Your task to perform on an android device: What's the latest news in astrophysics? Image 0: 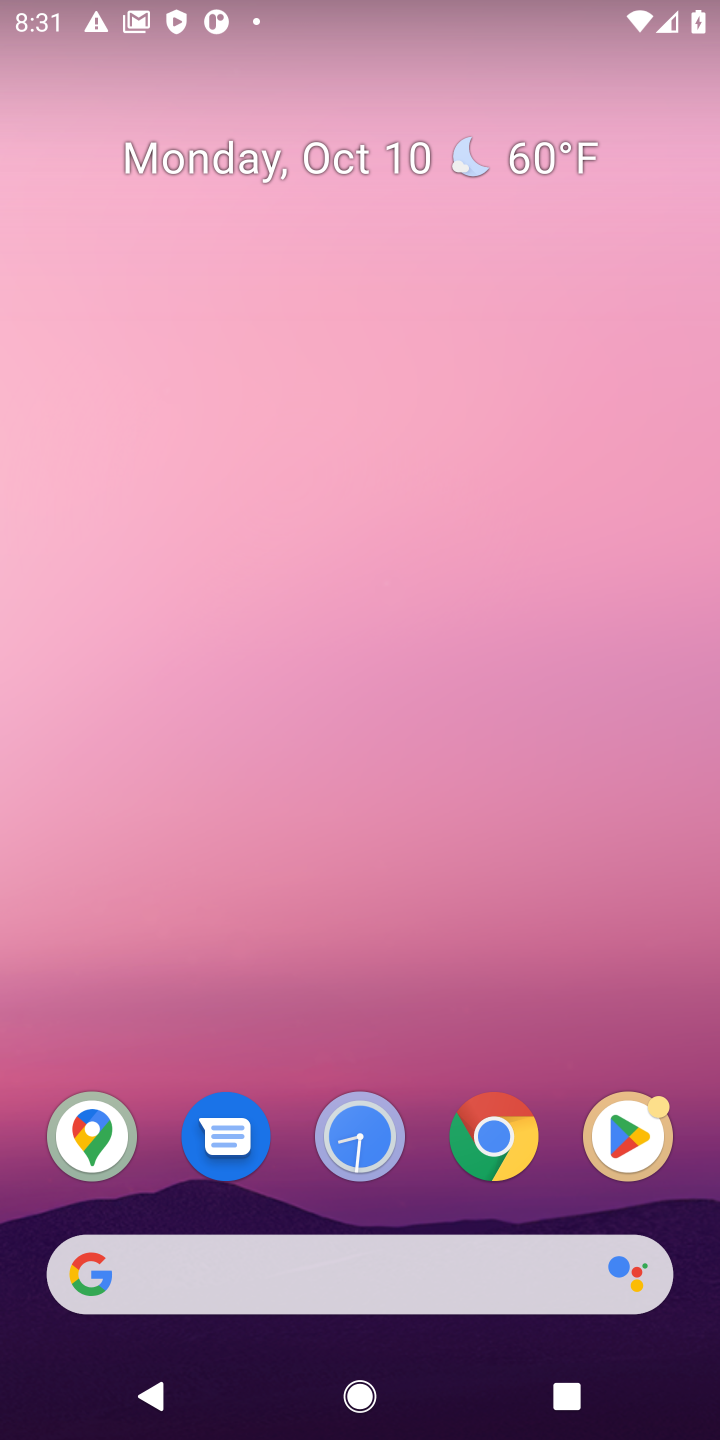
Step 0: click (258, 1282)
Your task to perform on an android device: What's the latest news in astrophysics? Image 1: 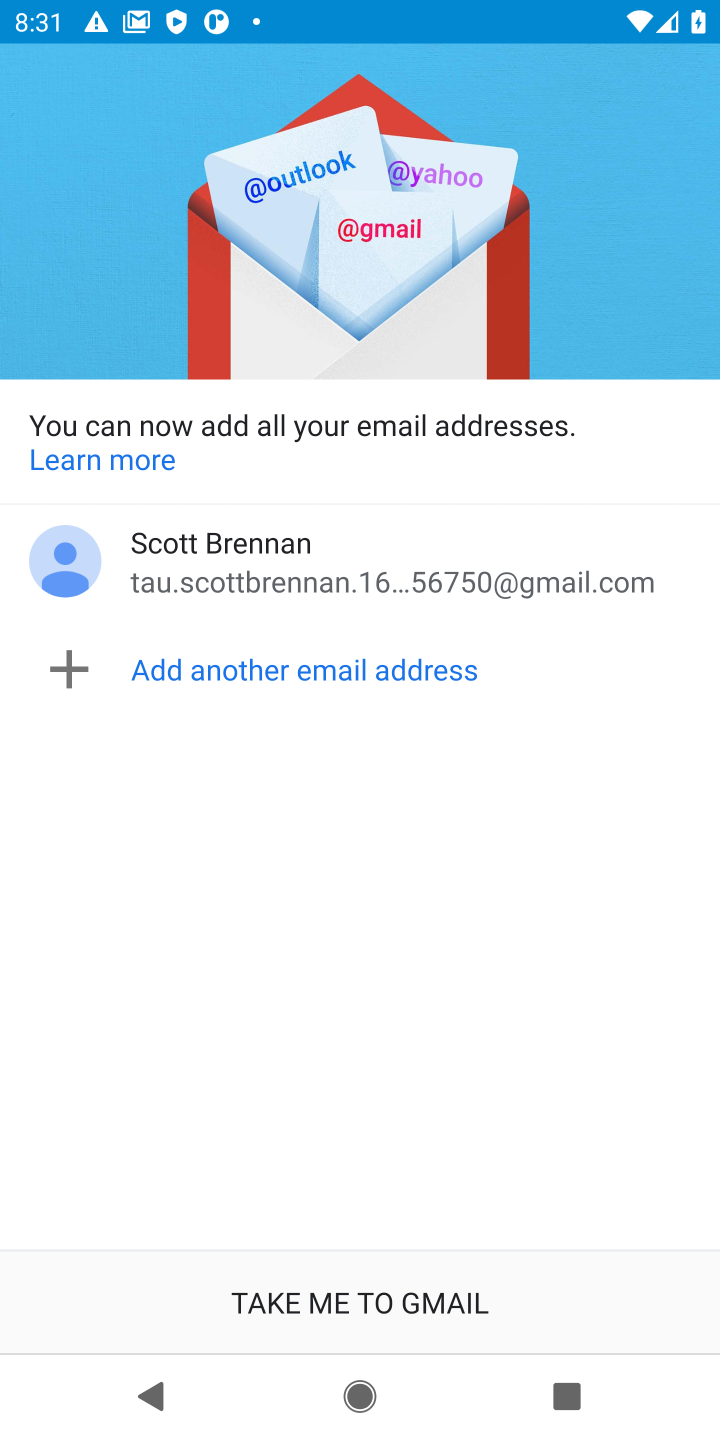
Step 1: press home button
Your task to perform on an android device: What's the latest news in astrophysics? Image 2: 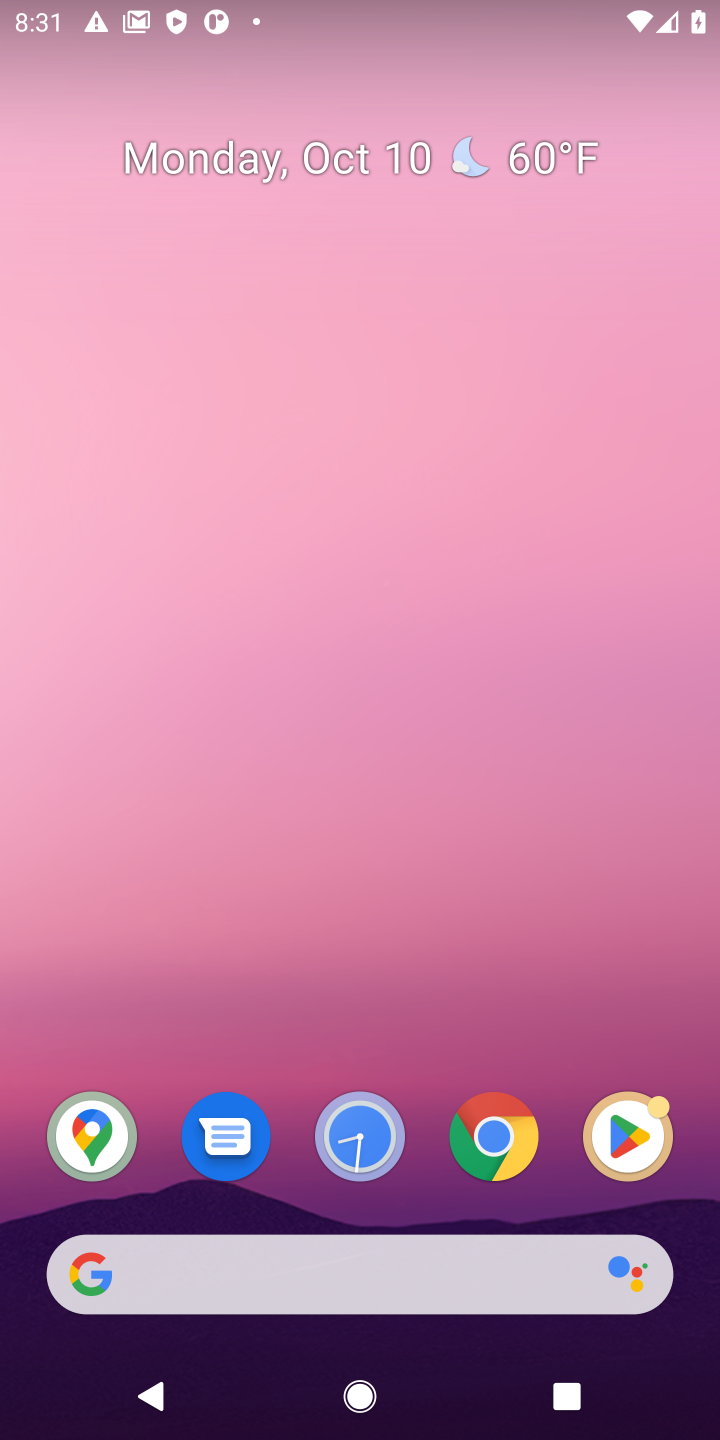
Step 2: click (182, 1272)
Your task to perform on an android device: What's the latest news in astrophysics? Image 3: 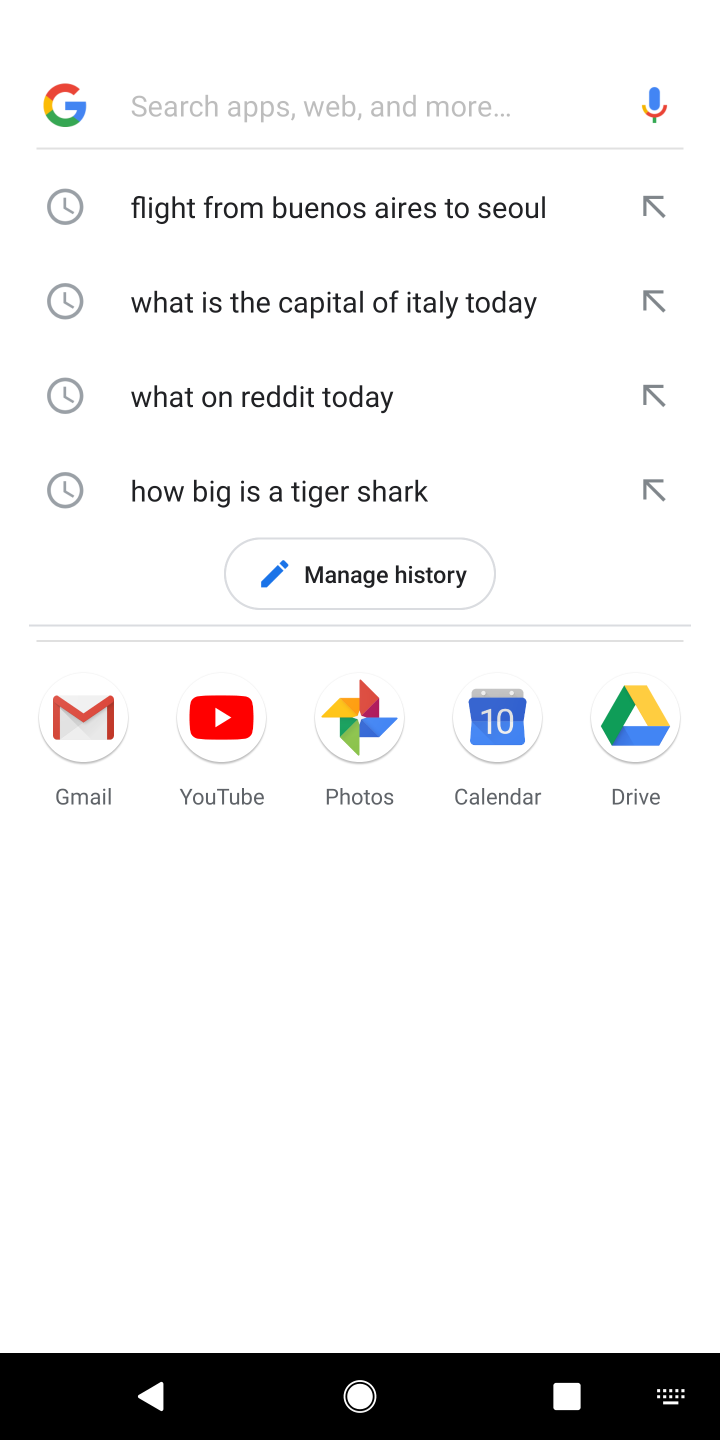
Step 3: type "What's the latest news in astrophysics?"
Your task to perform on an android device: What's the latest news in astrophysics? Image 4: 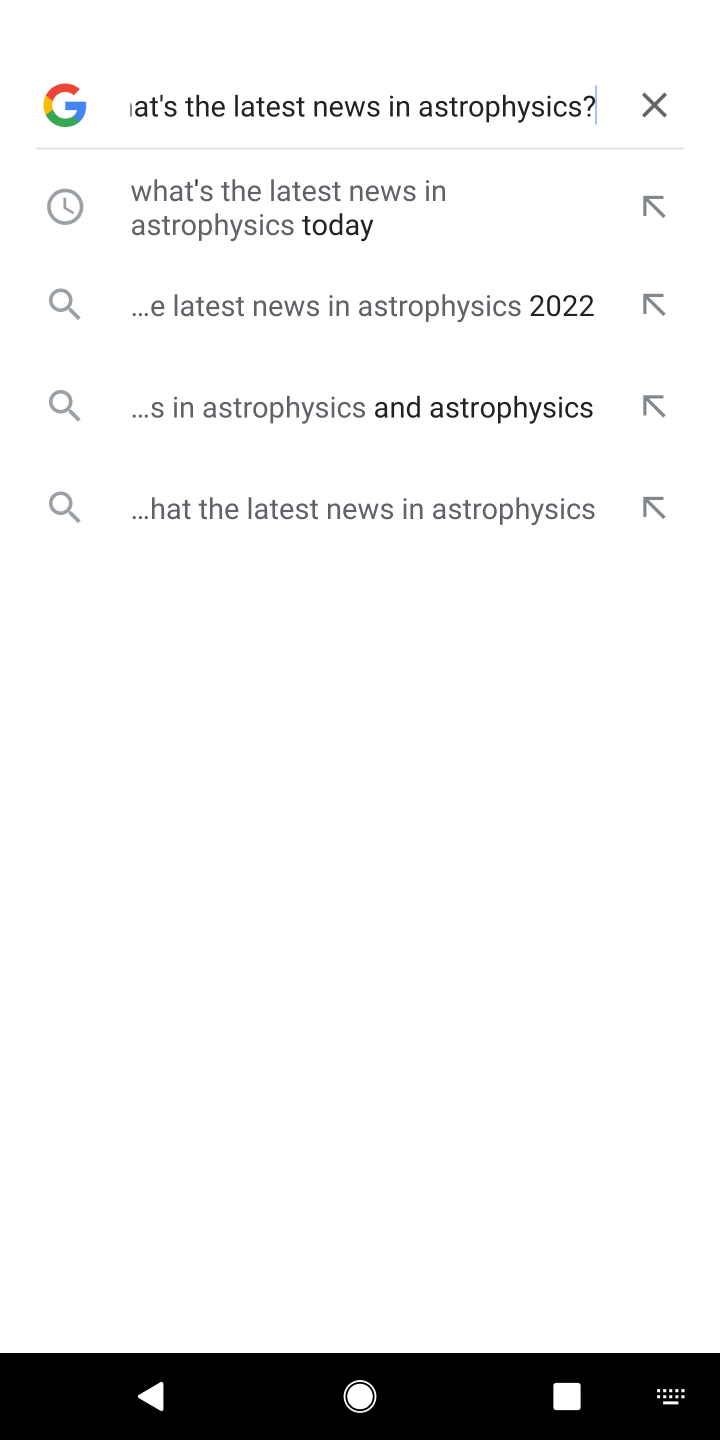
Step 4: click (316, 502)
Your task to perform on an android device: What's the latest news in astrophysics? Image 5: 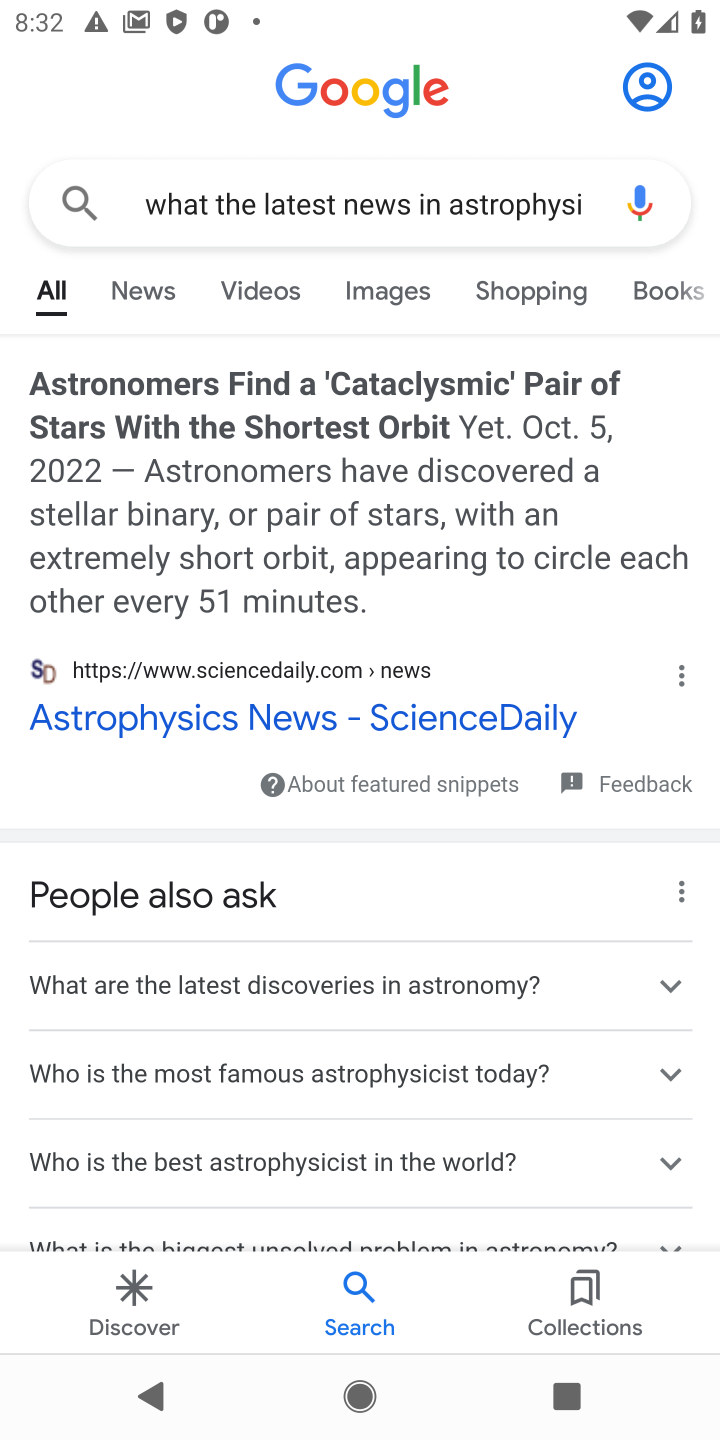
Step 5: click (321, 710)
Your task to perform on an android device: What's the latest news in astrophysics? Image 6: 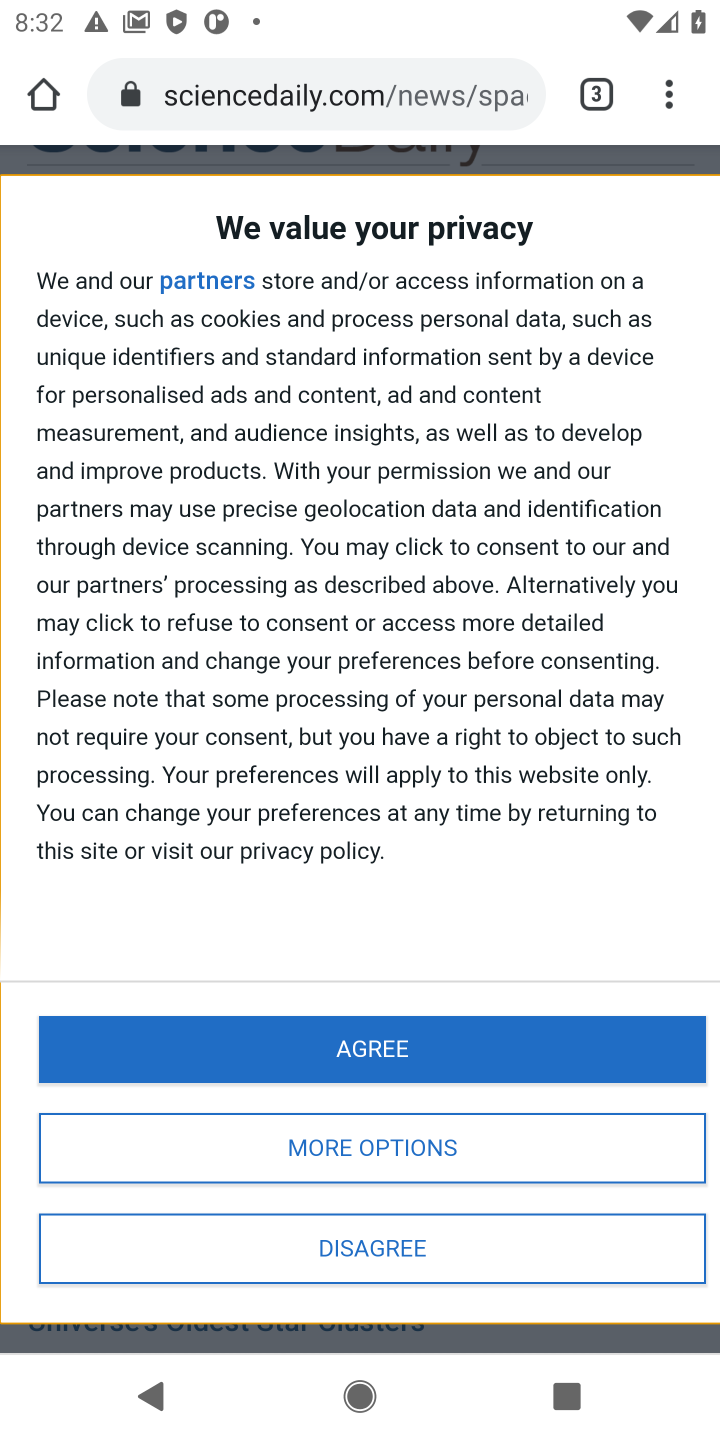
Step 6: click (387, 1066)
Your task to perform on an android device: What's the latest news in astrophysics? Image 7: 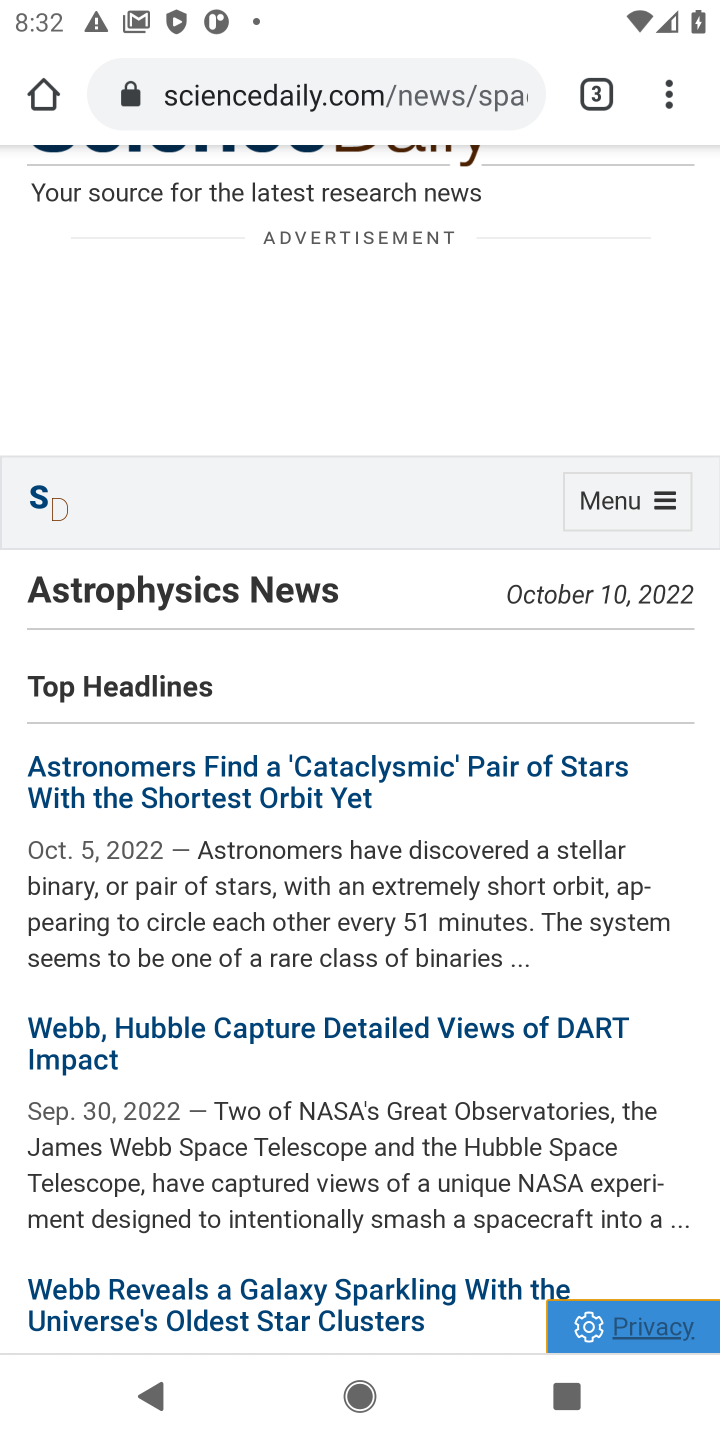
Step 7: task complete